Your task to perform on an android device: Turn off the flashlight Image 0: 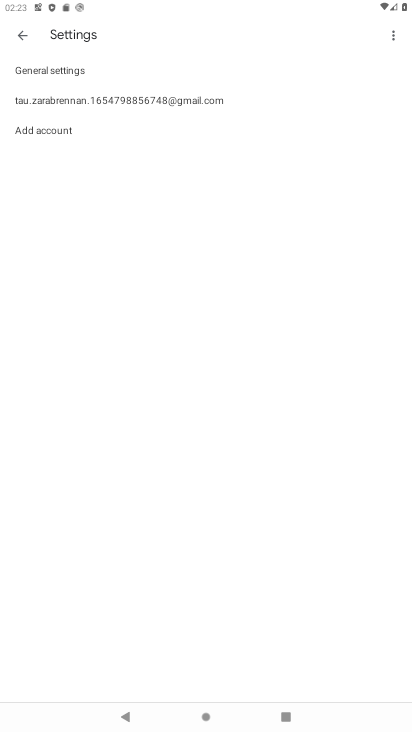
Step 0: press home button
Your task to perform on an android device: Turn off the flashlight Image 1: 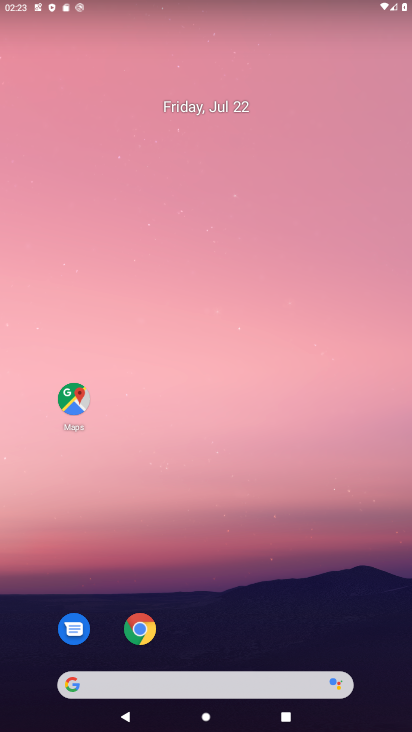
Step 1: drag from (110, 482) to (237, 174)
Your task to perform on an android device: Turn off the flashlight Image 2: 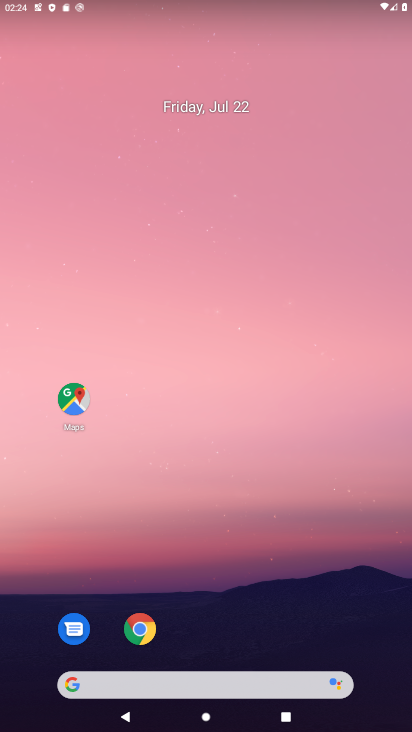
Step 2: drag from (25, 423) to (185, 73)
Your task to perform on an android device: Turn off the flashlight Image 3: 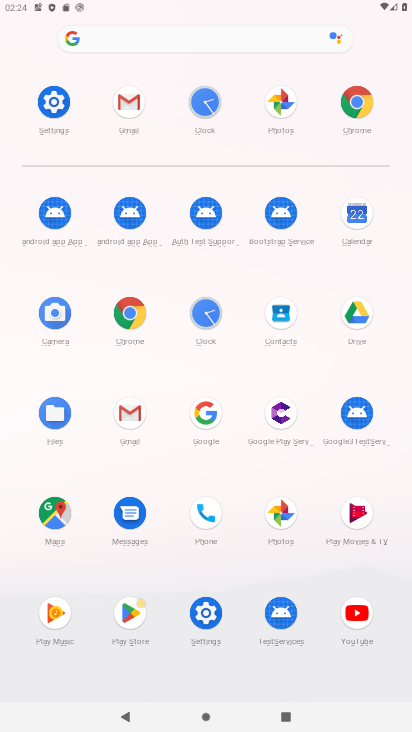
Step 3: click (56, 104)
Your task to perform on an android device: Turn off the flashlight Image 4: 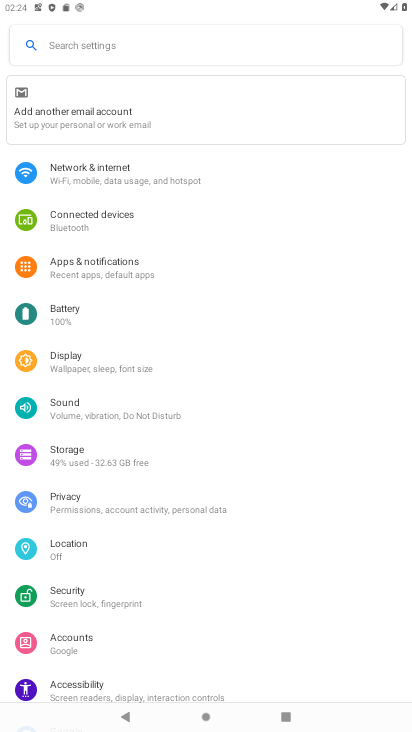
Step 4: task complete